Your task to perform on an android device: delete browsing data in the chrome app Image 0: 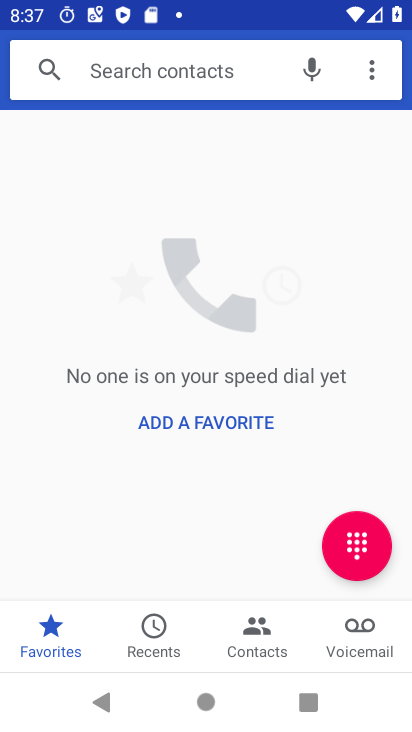
Step 0: press home button
Your task to perform on an android device: delete browsing data in the chrome app Image 1: 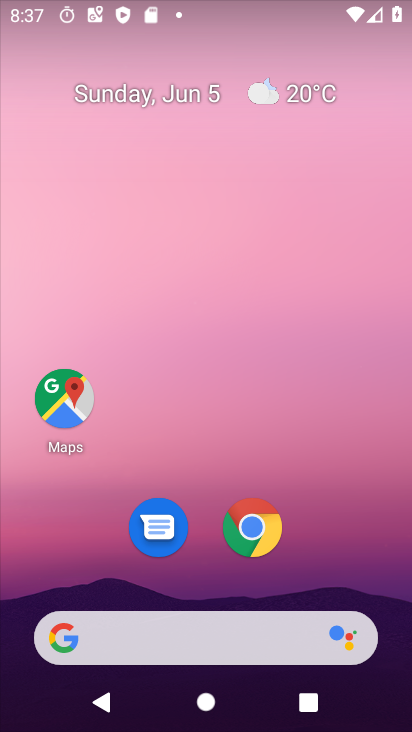
Step 1: click (254, 523)
Your task to perform on an android device: delete browsing data in the chrome app Image 2: 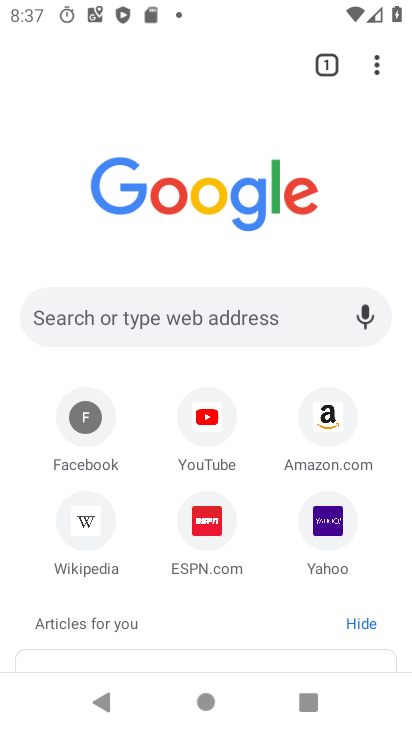
Step 2: click (379, 74)
Your task to perform on an android device: delete browsing data in the chrome app Image 3: 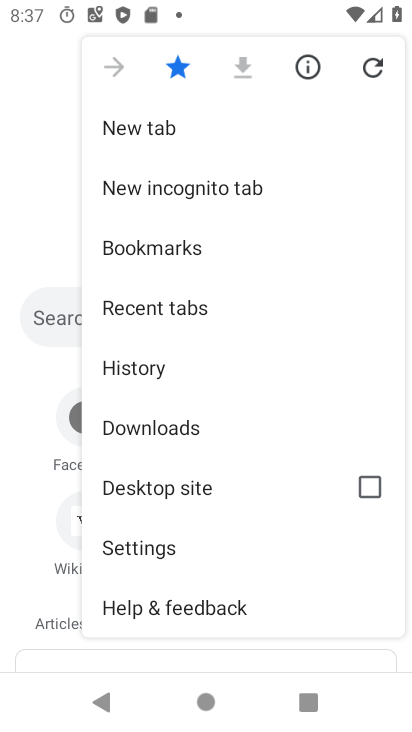
Step 3: click (143, 370)
Your task to perform on an android device: delete browsing data in the chrome app Image 4: 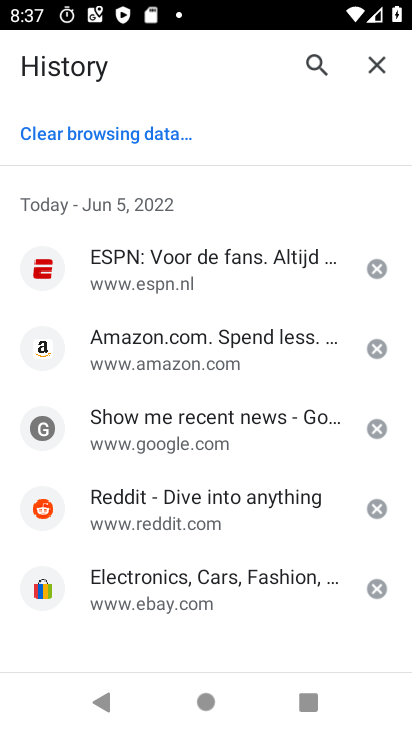
Step 4: click (128, 136)
Your task to perform on an android device: delete browsing data in the chrome app Image 5: 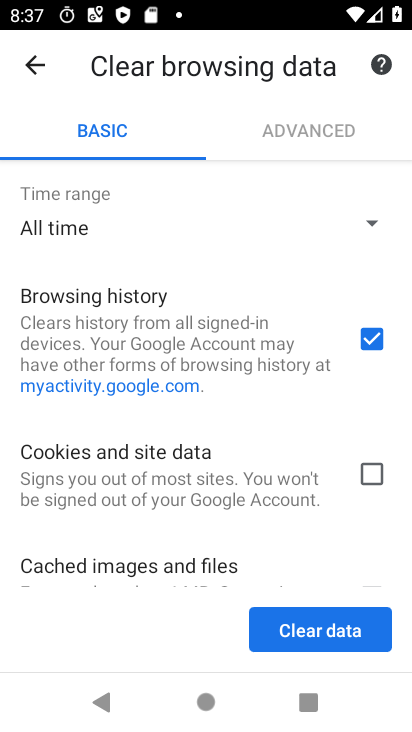
Step 5: click (315, 639)
Your task to perform on an android device: delete browsing data in the chrome app Image 6: 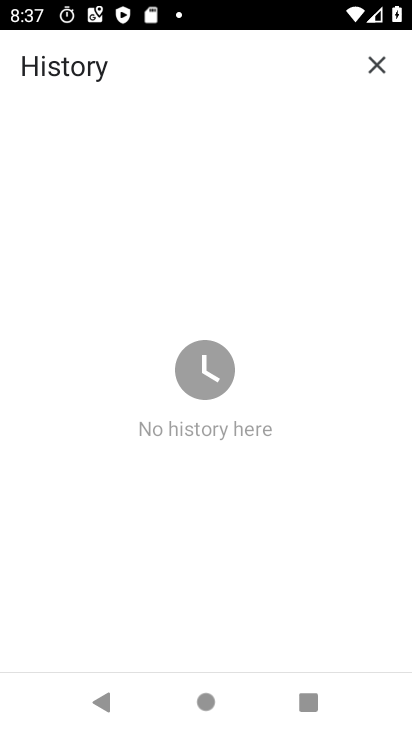
Step 6: task complete